Your task to perform on an android device: set an alarm Image 0: 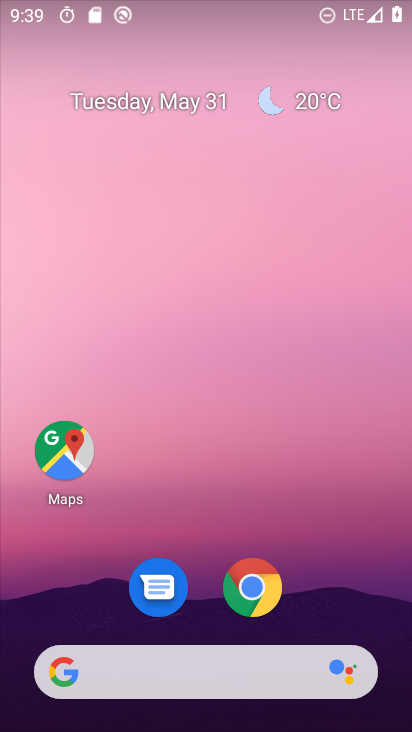
Step 0: drag from (205, 610) to (270, 109)
Your task to perform on an android device: set an alarm Image 1: 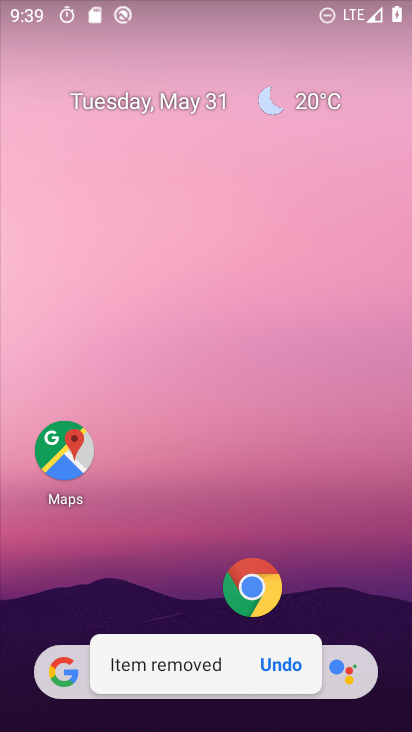
Step 1: click (282, 682)
Your task to perform on an android device: set an alarm Image 2: 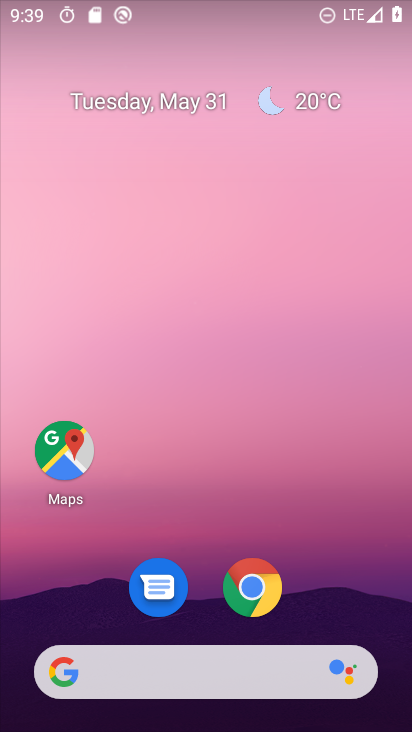
Step 2: drag from (216, 636) to (208, 115)
Your task to perform on an android device: set an alarm Image 3: 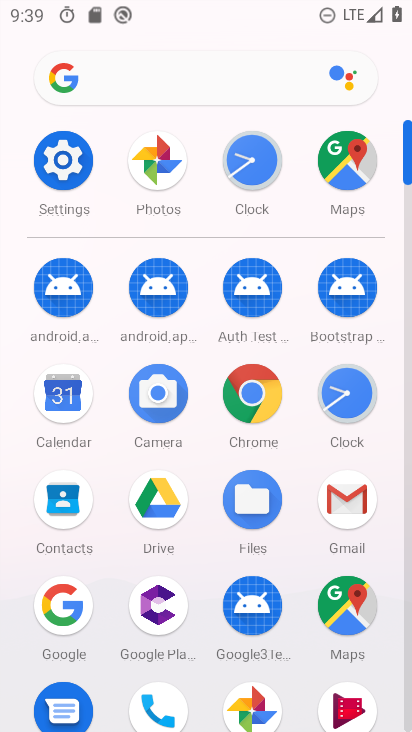
Step 3: click (272, 156)
Your task to perform on an android device: set an alarm Image 4: 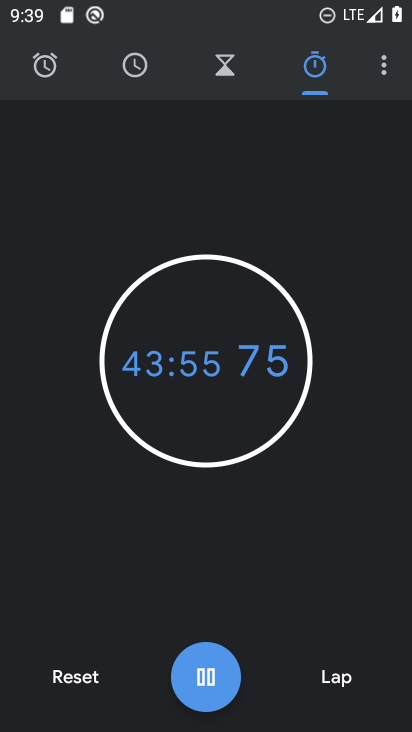
Step 4: click (50, 61)
Your task to perform on an android device: set an alarm Image 5: 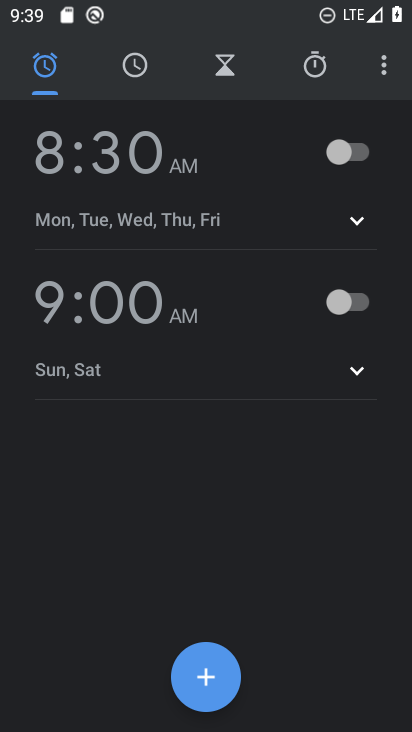
Step 5: click (352, 310)
Your task to perform on an android device: set an alarm Image 6: 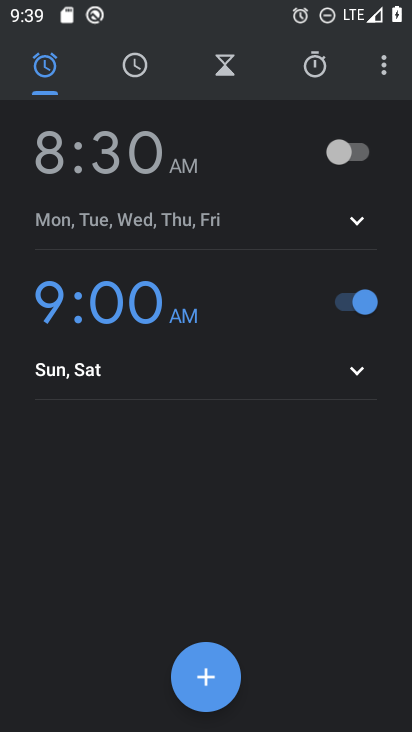
Step 6: task complete